Your task to perform on an android device: turn pop-ups off in chrome Image 0: 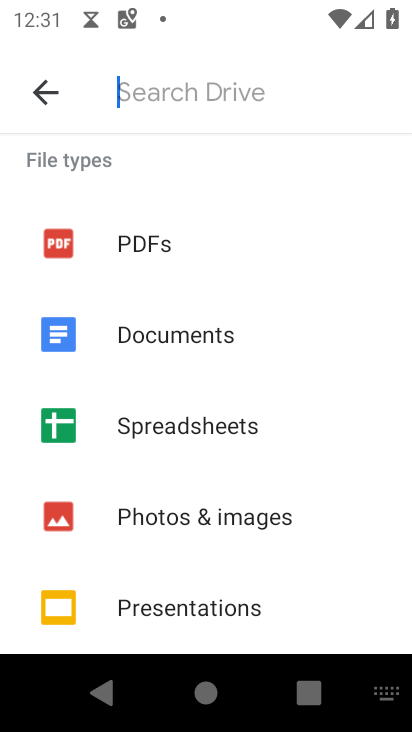
Step 0: press home button
Your task to perform on an android device: turn pop-ups off in chrome Image 1: 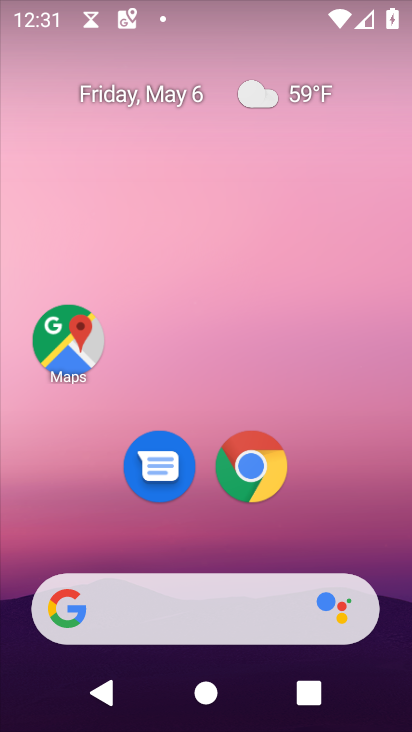
Step 1: click (265, 464)
Your task to perform on an android device: turn pop-ups off in chrome Image 2: 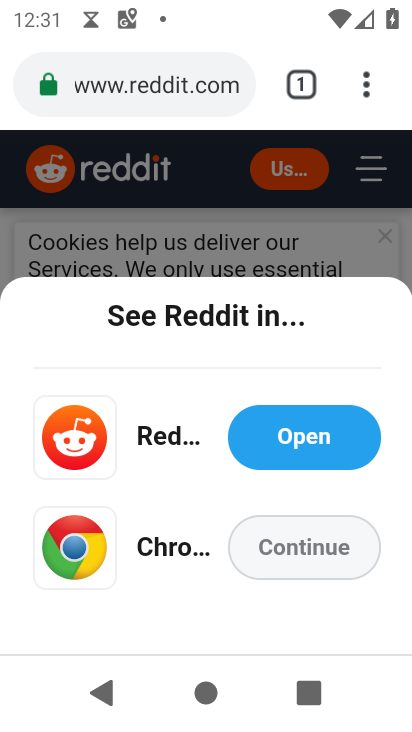
Step 2: drag from (372, 91) to (219, 518)
Your task to perform on an android device: turn pop-ups off in chrome Image 3: 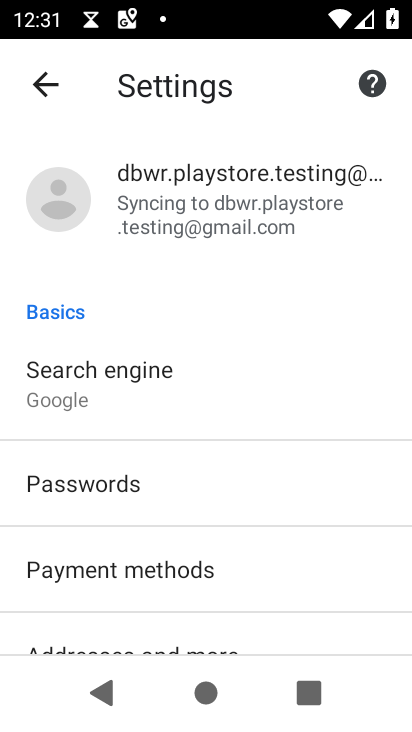
Step 3: drag from (280, 582) to (243, 107)
Your task to perform on an android device: turn pop-ups off in chrome Image 4: 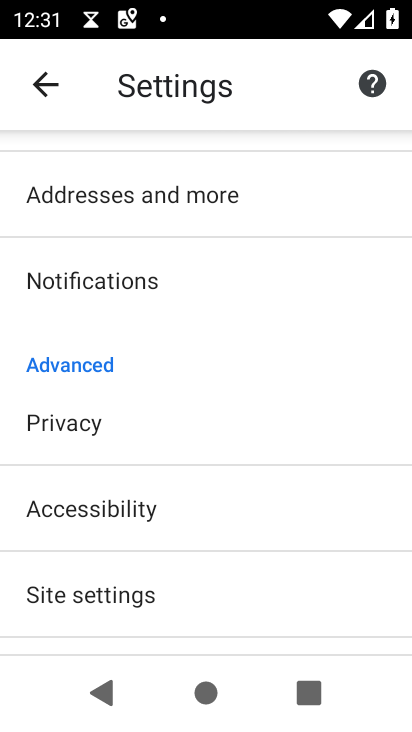
Step 4: click (335, 586)
Your task to perform on an android device: turn pop-ups off in chrome Image 5: 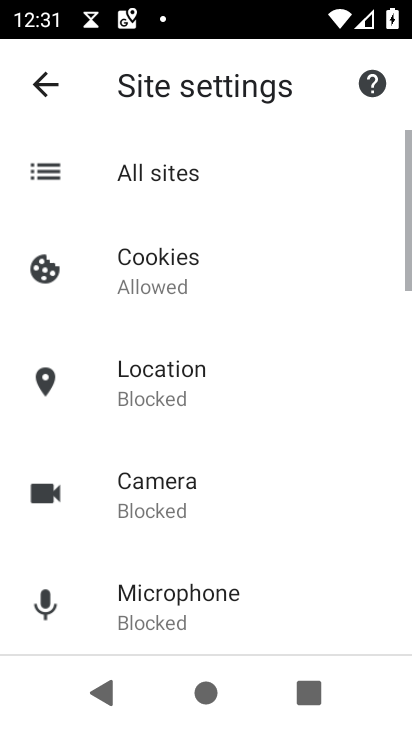
Step 5: drag from (335, 586) to (286, 204)
Your task to perform on an android device: turn pop-ups off in chrome Image 6: 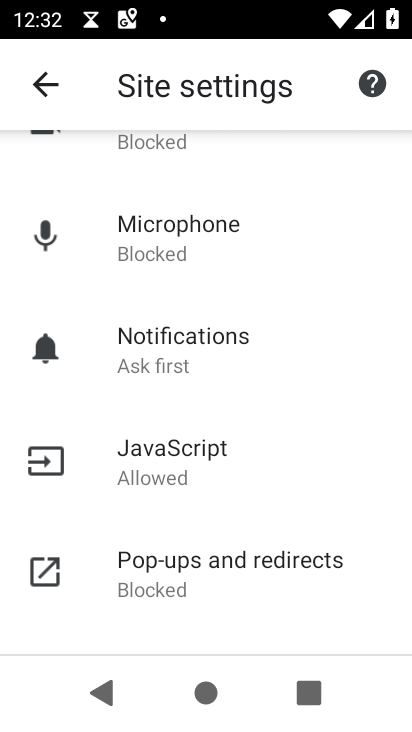
Step 6: click (339, 592)
Your task to perform on an android device: turn pop-ups off in chrome Image 7: 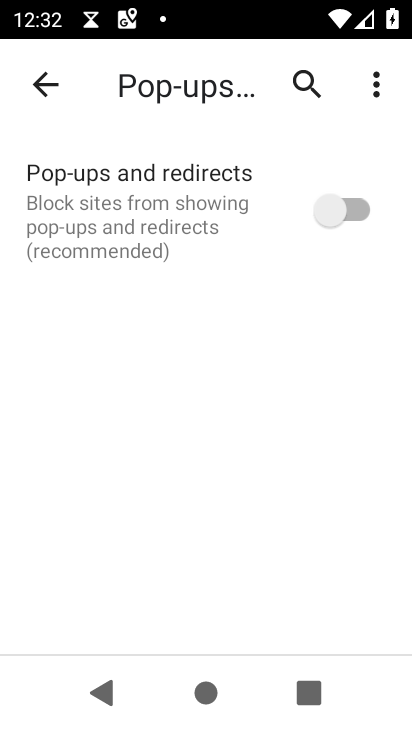
Step 7: task complete